Your task to perform on an android device: What is the recent news? Image 0: 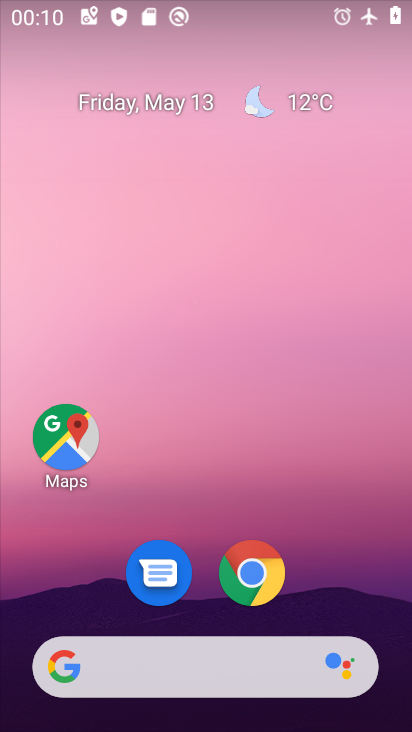
Step 0: click (120, 668)
Your task to perform on an android device: What is the recent news? Image 1: 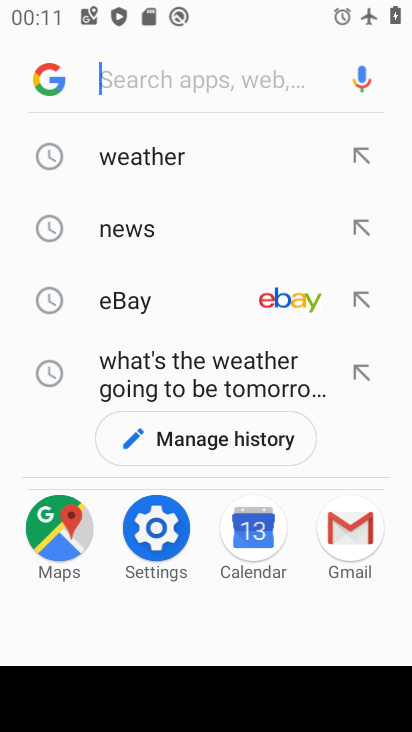
Step 1: type "recent news"
Your task to perform on an android device: What is the recent news? Image 2: 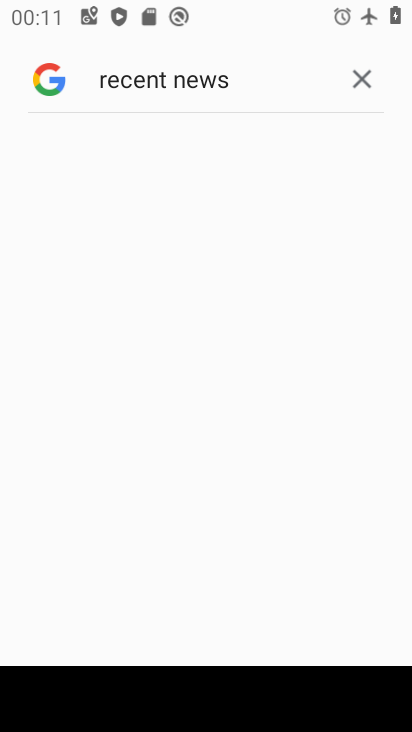
Step 2: task complete